Your task to perform on an android device: Go to sound settings Image 0: 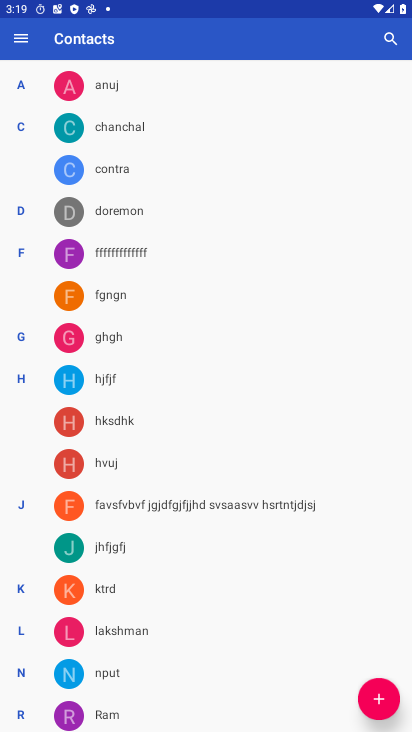
Step 0: press home button
Your task to perform on an android device: Go to sound settings Image 1: 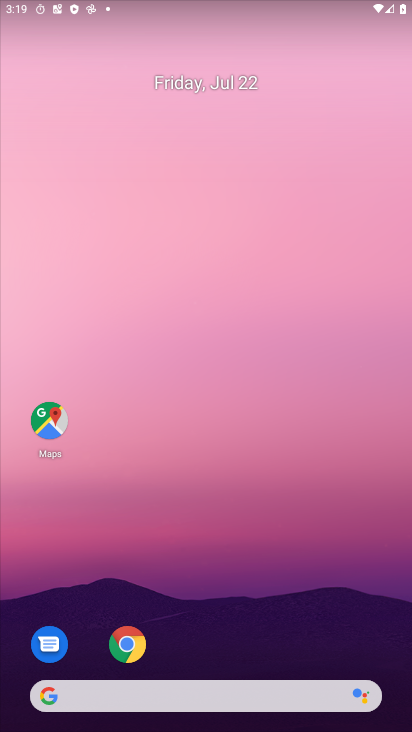
Step 1: drag from (187, 656) to (172, 215)
Your task to perform on an android device: Go to sound settings Image 2: 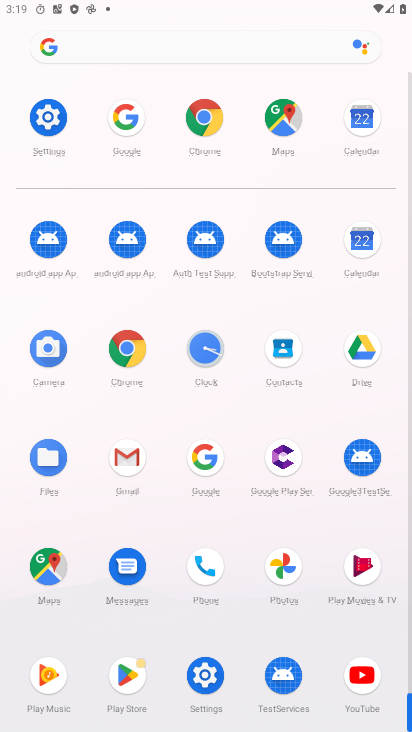
Step 2: click (50, 138)
Your task to perform on an android device: Go to sound settings Image 3: 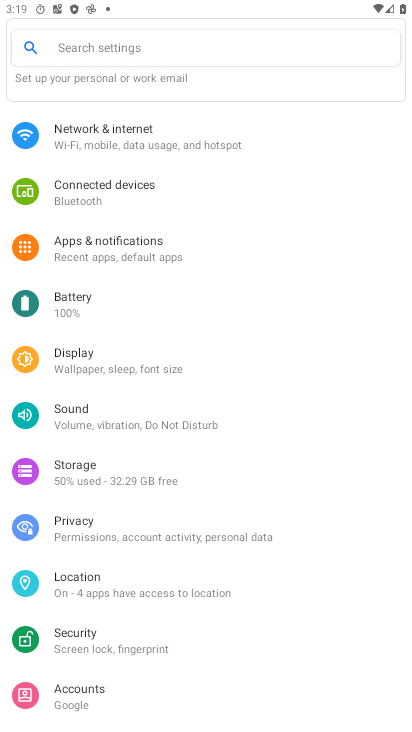
Step 3: click (133, 423)
Your task to perform on an android device: Go to sound settings Image 4: 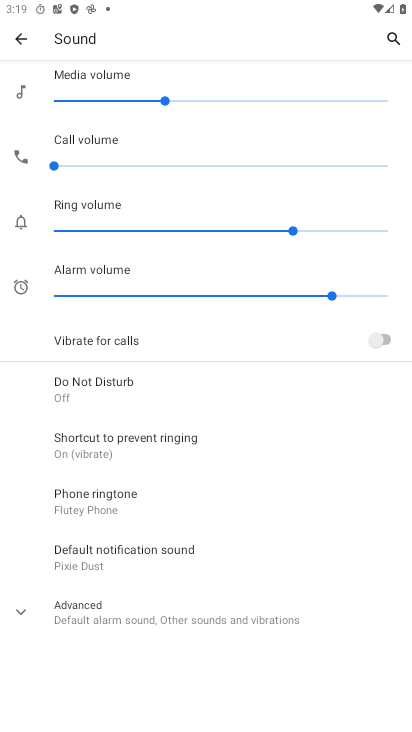
Step 4: task complete